Your task to perform on an android device: Open ESPN.com Image 0: 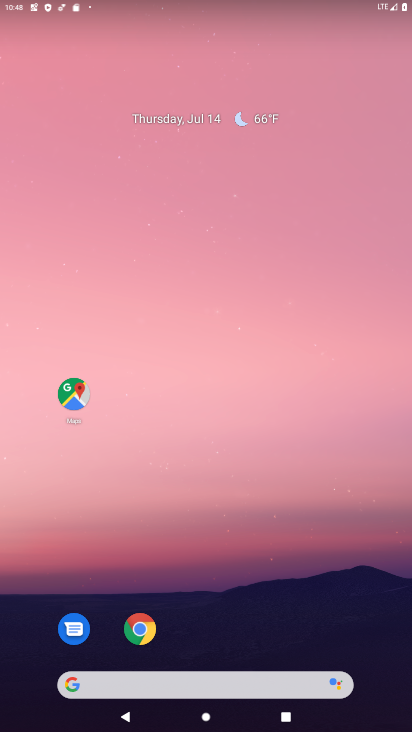
Step 0: click (76, 687)
Your task to perform on an android device: Open ESPN.com Image 1: 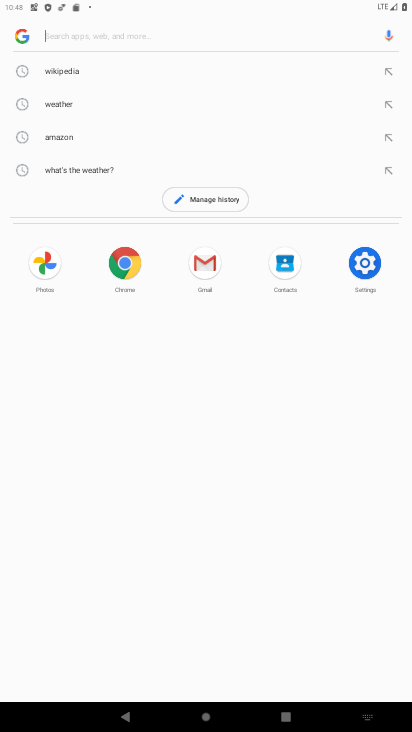
Step 1: type "ESPN.com"
Your task to perform on an android device: Open ESPN.com Image 2: 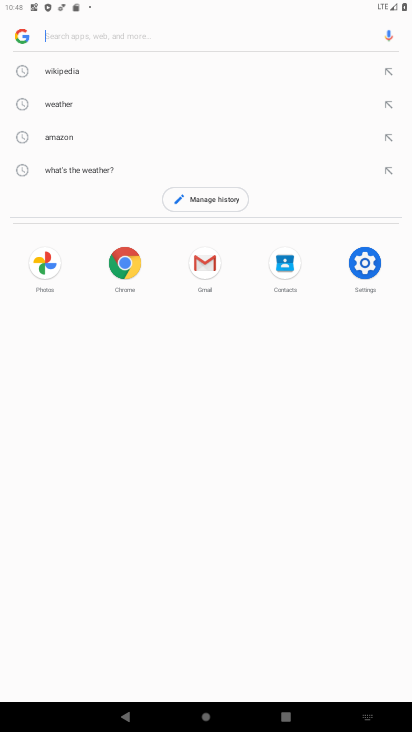
Step 2: click (61, 34)
Your task to perform on an android device: Open ESPN.com Image 3: 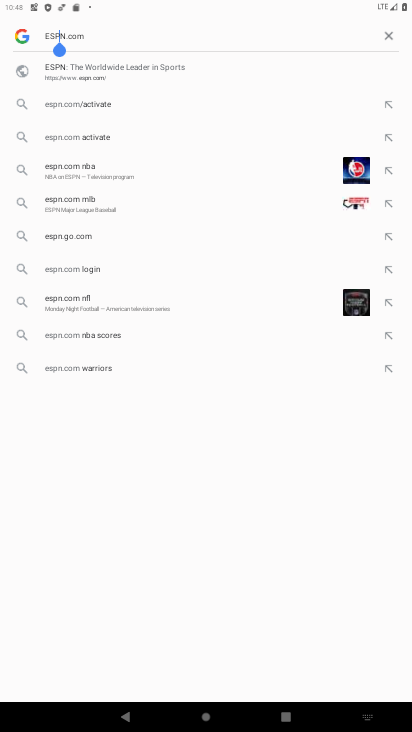
Step 3: press enter
Your task to perform on an android device: Open ESPN.com Image 4: 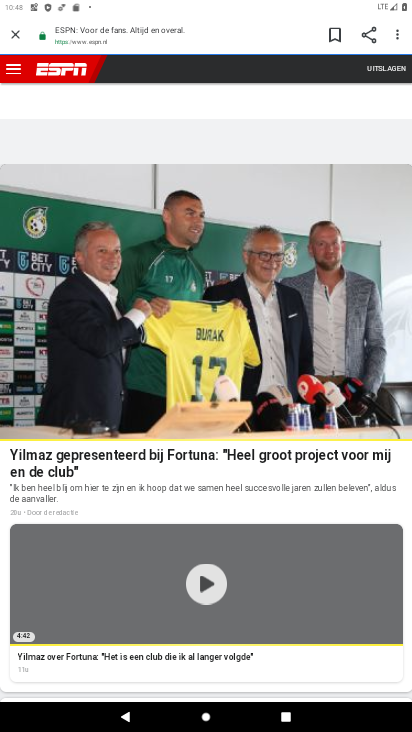
Step 4: task complete